Your task to perform on an android device: Go to Google Image 0: 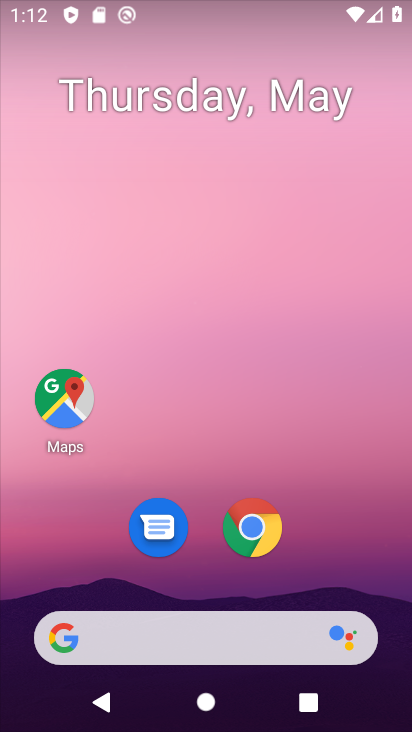
Step 0: drag from (353, 582) to (340, 2)
Your task to perform on an android device: Go to Google Image 1: 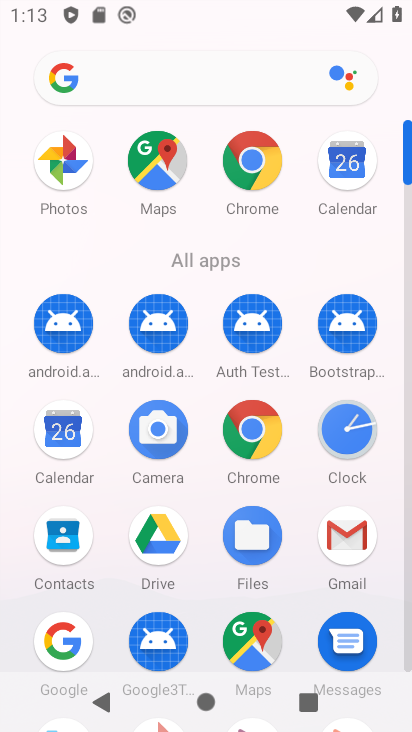
Step 1: click (56, 635)
Your task to perform on an android device: Go to Google Image 2: 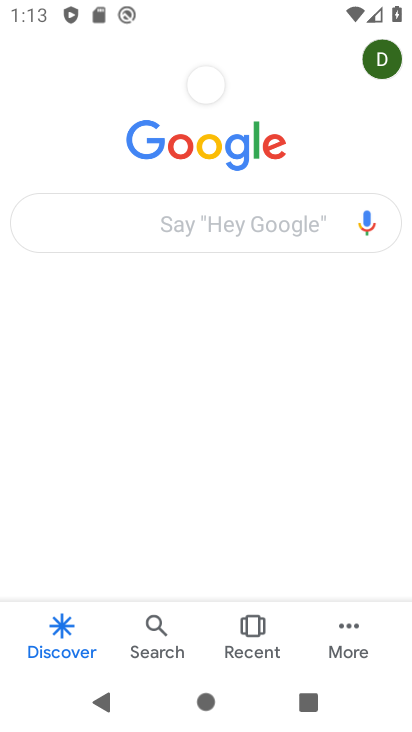
Step 2: task complete